Your task to perform on an android device: Check the news Image 0: 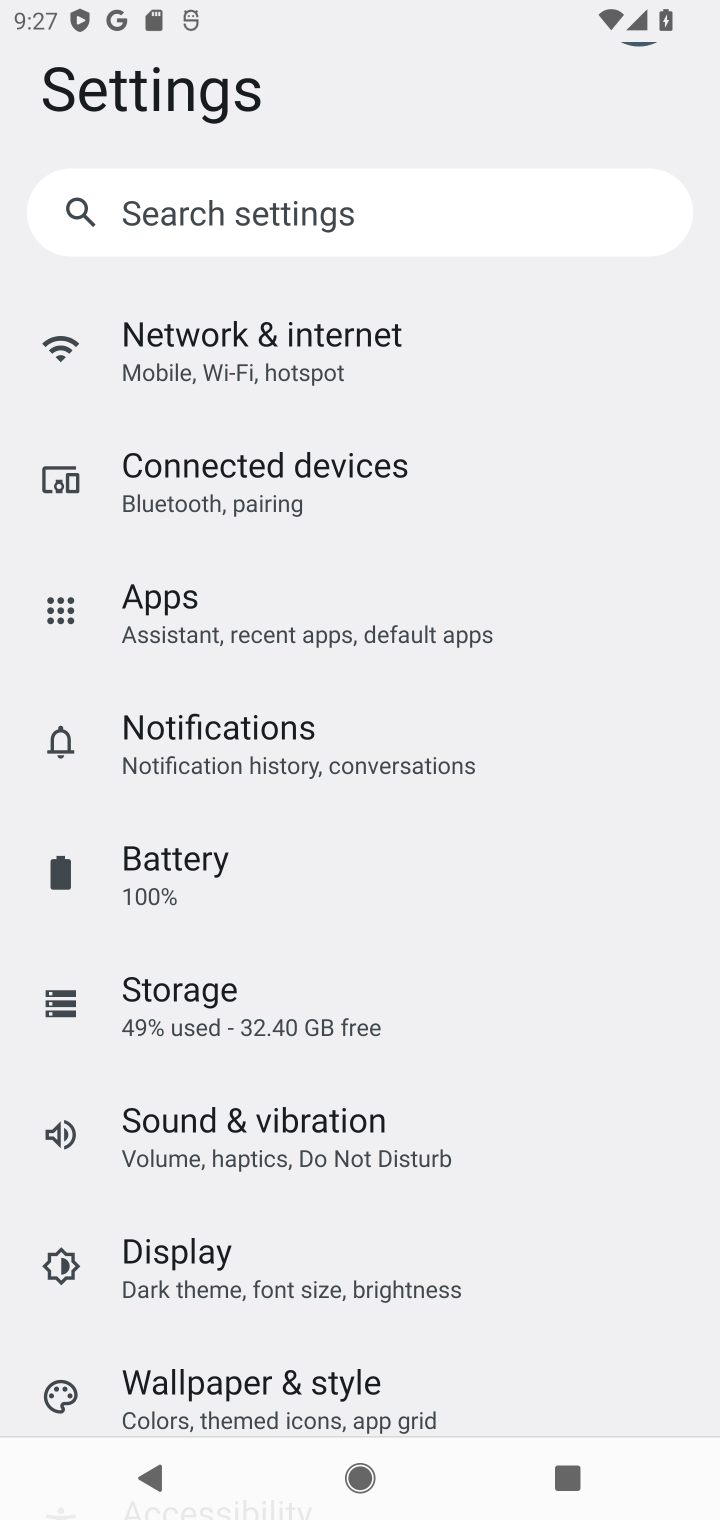
Step 0: press home button
Your task to perform on an android device: Check the news Image 1: 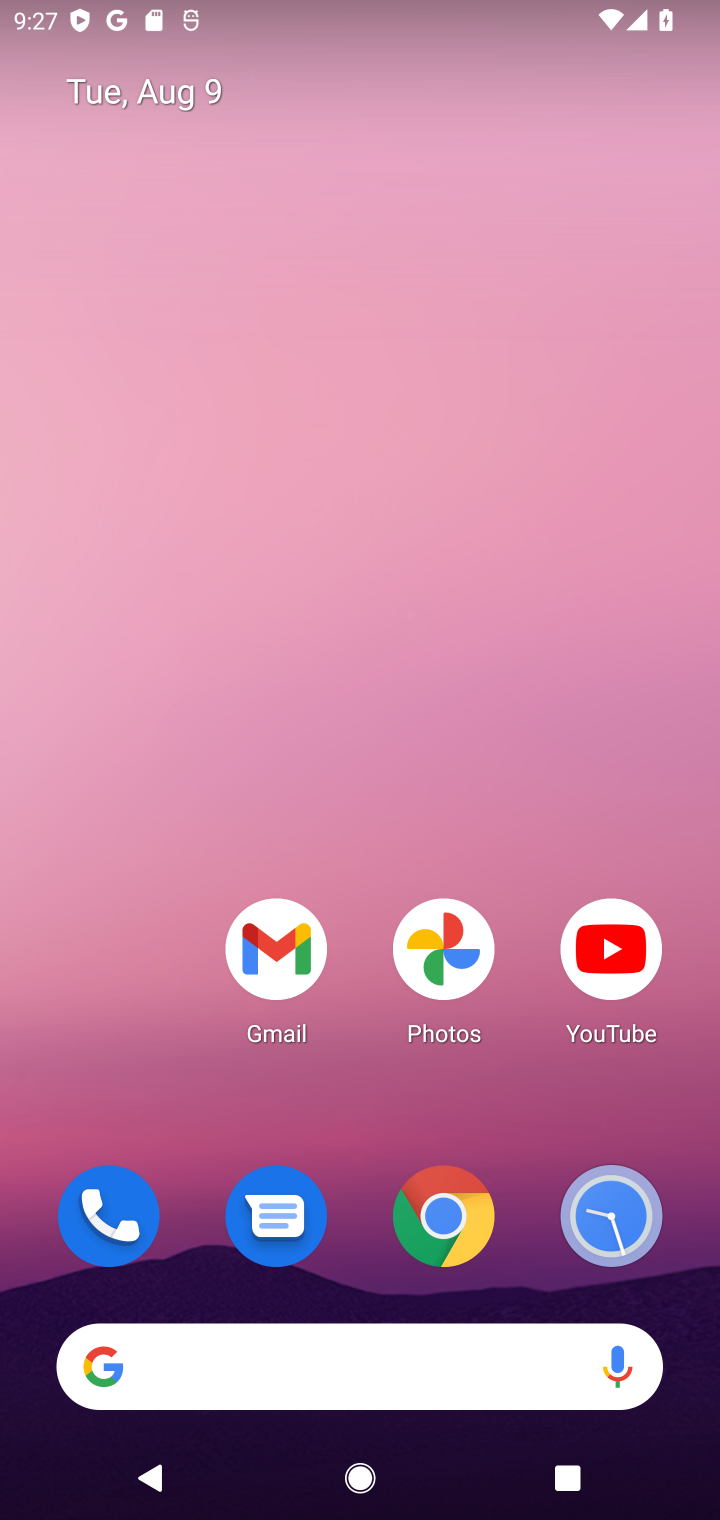
Step 1: drag from (336, 1137) to (358, 453)
Your task to perform on an android device: Check the news Image 2: 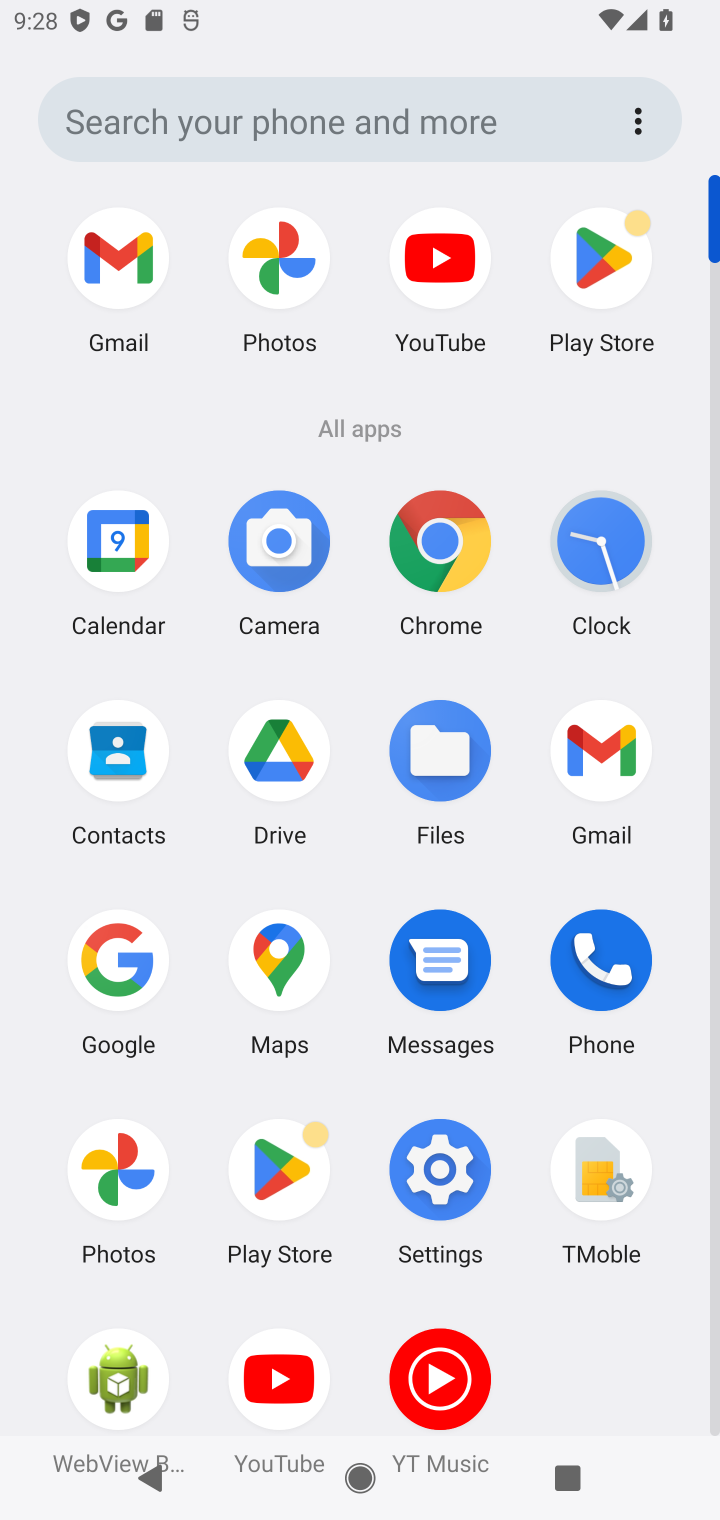
Step 2: click (99, 960)
Your task to perform on an android device: Check the news Image 3: 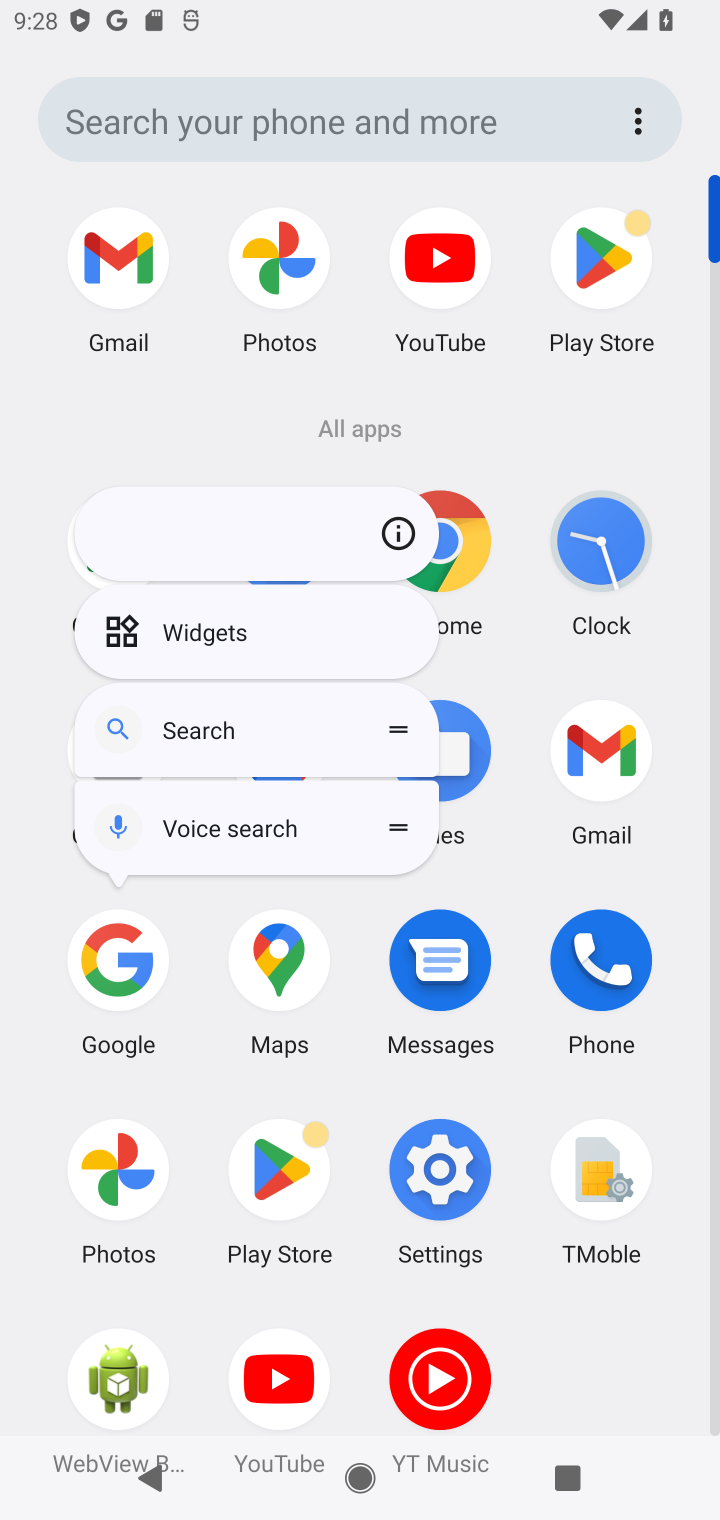
Step 3: click (118, 954)
Your task to perform on an android device: Check the news Image 4: 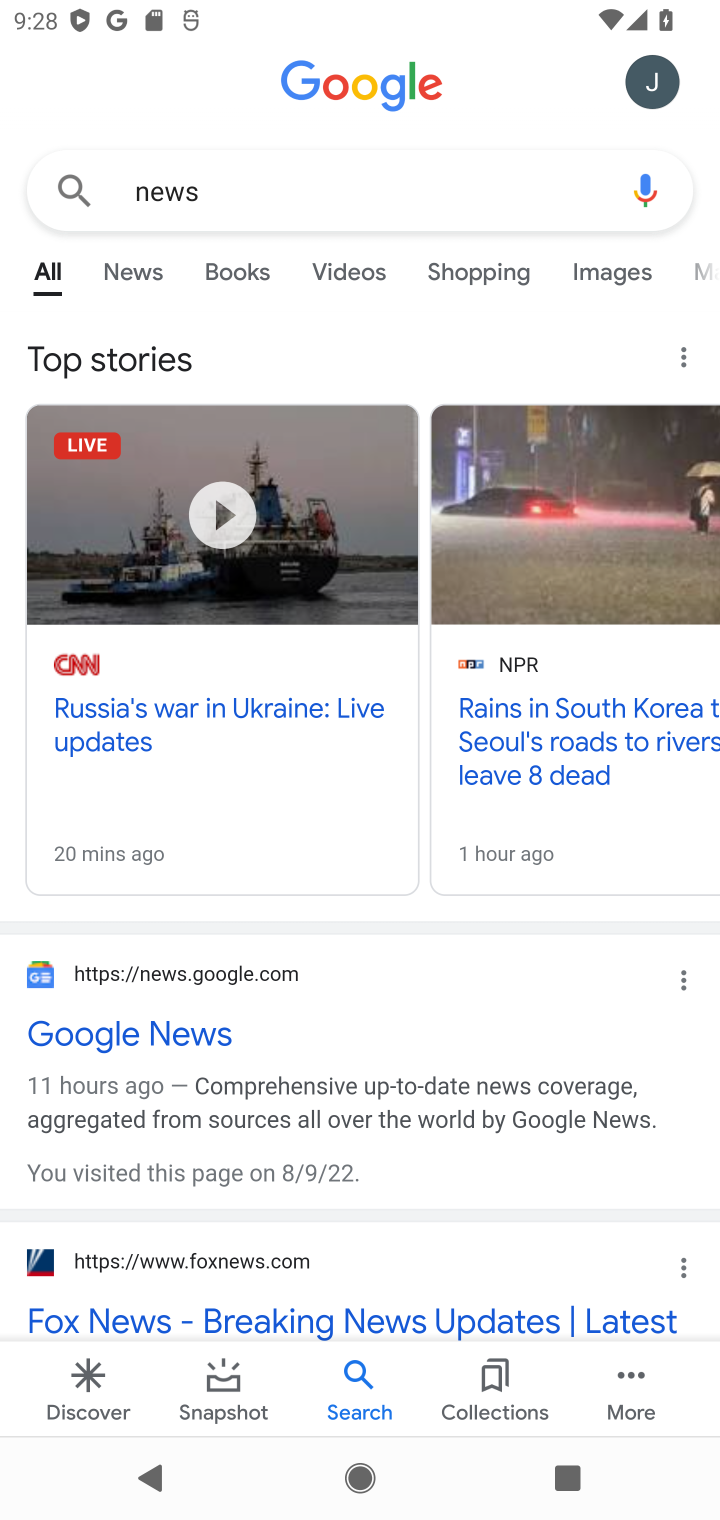
Step 4: click (256, 205)
Your task to perform on an android device: Check the news Image 5: 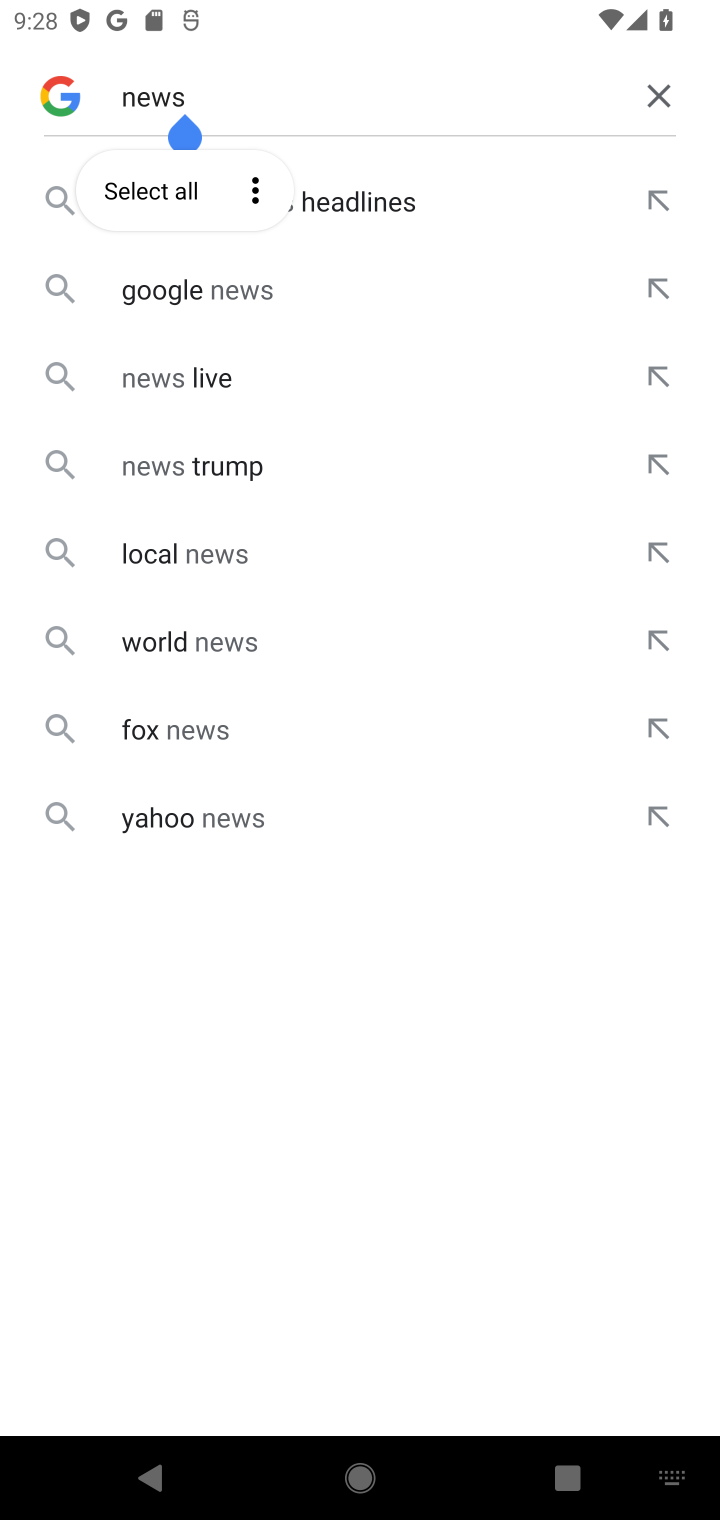
Step 5: click (665, 90)
Your task to perform on an android device: Check the news Image 6: 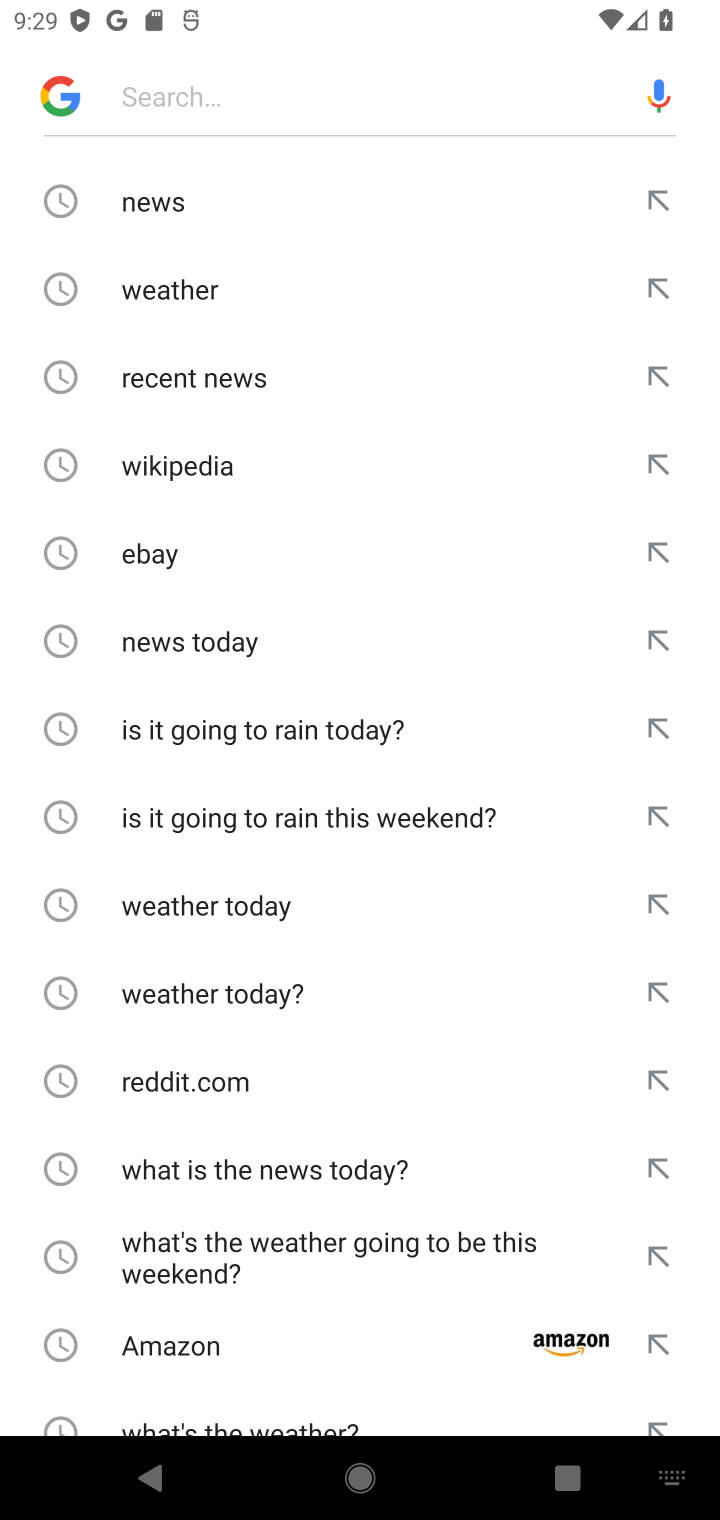
Step 6: click (177, 205)
Your task to perform on an android device: Check the news Image 7: 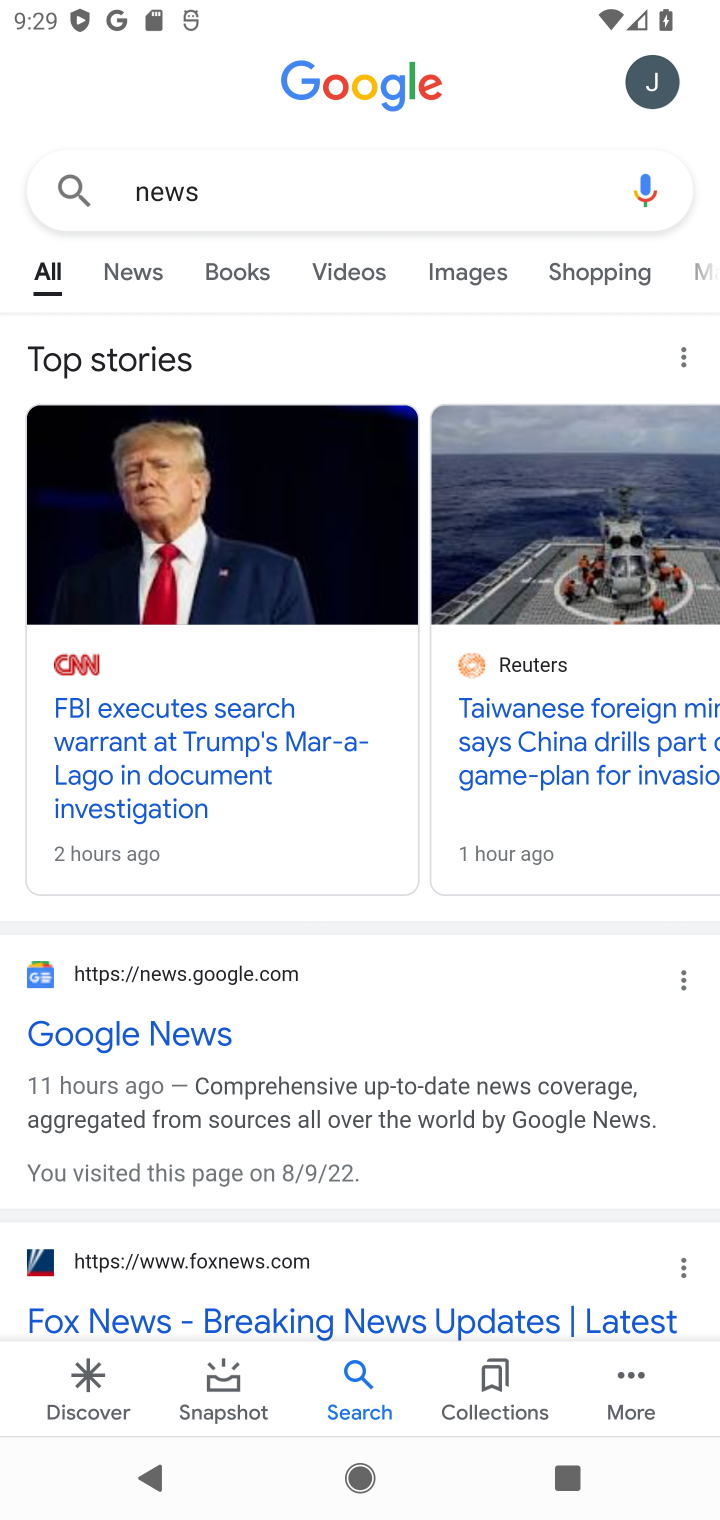
Step 7: task complete